Your task to perform on an android device: open a new tab in the chrome app Image 0: 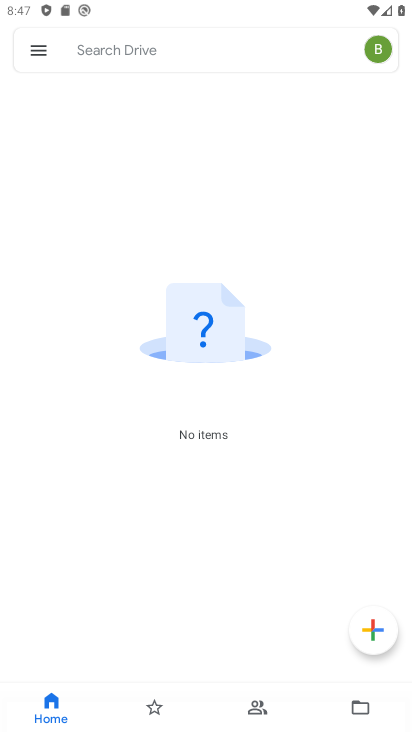
Step 0: press home button
Your task to perform on an android device: open a new tab in the chrome app Image 1: 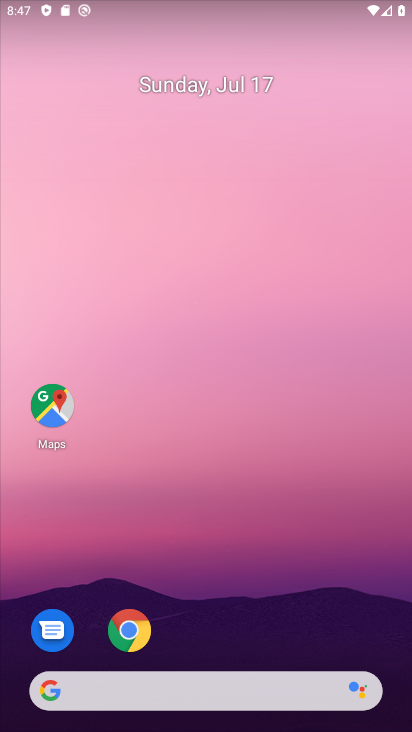
Step 1: drag from (255, 672) to (287, 60)
Your task to perform on an android device: open a new tab in the chrome app Image 2: 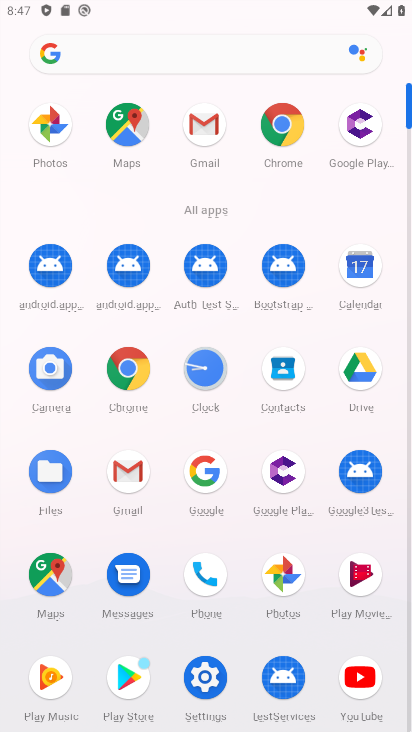
Step 2: click (126, 361)
Your task to perform on an android device: open a new tab in the chrome app Image 3: 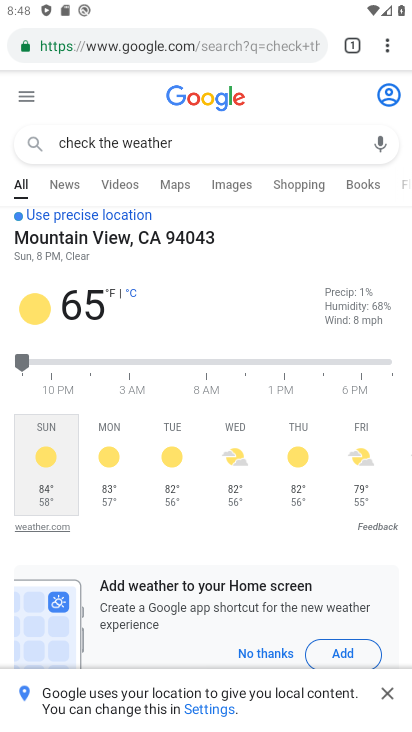
Step 3: click (390, 49)
Your task to perform on an android device: open a new tab in the chrome app Image 4: 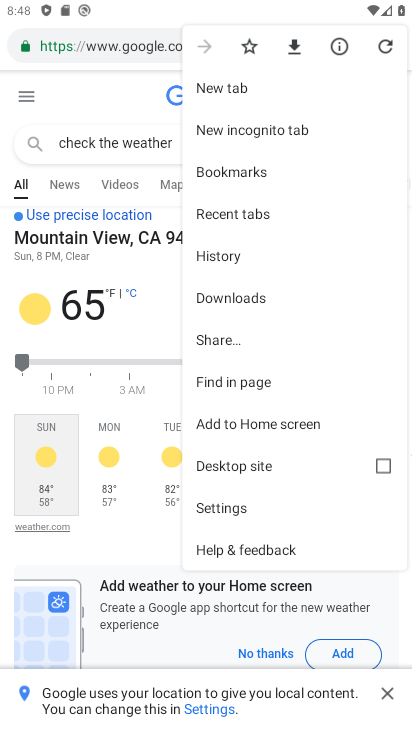
Step 4: click (300, 86)
Your task to perform on an android device: open a new tab in the chrome app Image 5: 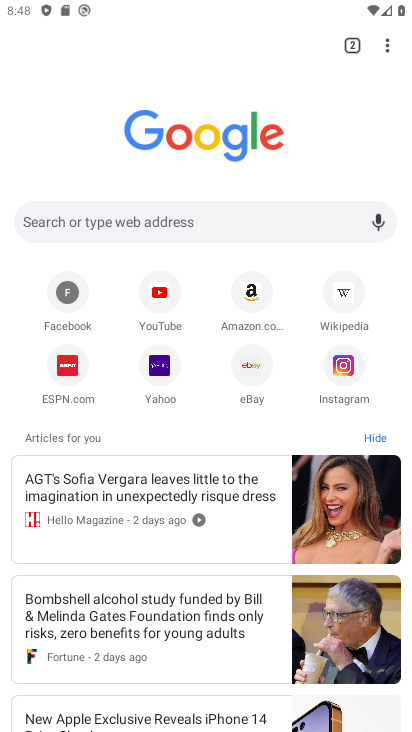
Step 5: task complete